Your task to perform on an android device: open sync settings in chrome Image 0: 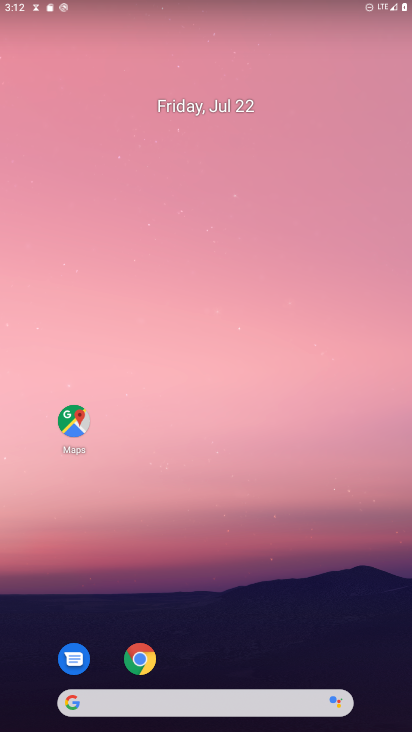
Step 0: drag from (309, 618) to (388, 66)
Your task to perform on an android device: open sync settings in chrome Image 1: 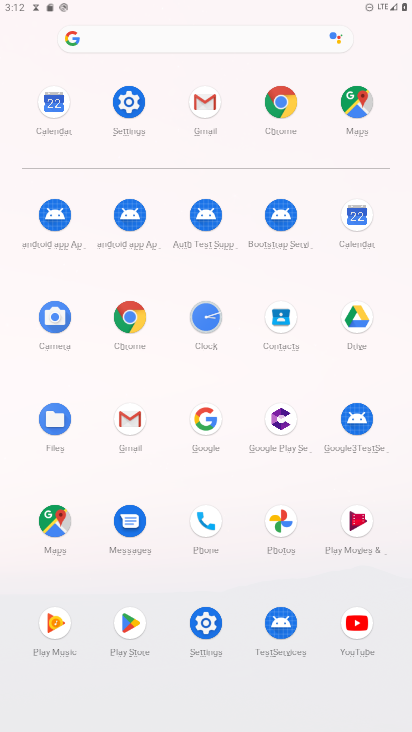
Step 1: click (273, 109)
Your task to perform on an android device: open sync settings in chrome Image 2: 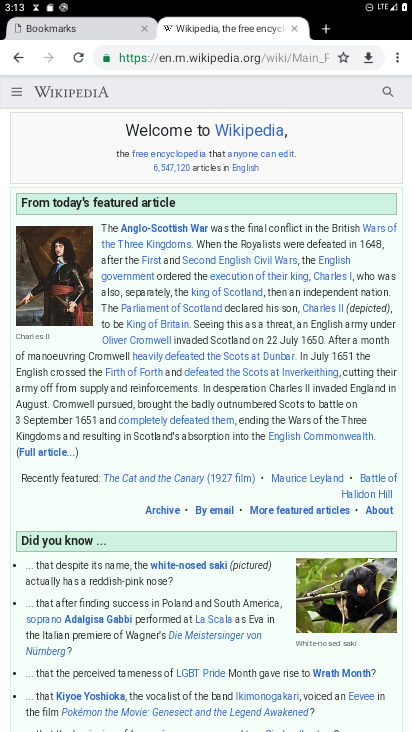
Step 2: drag from (392, 69) to (280, 383)
Your task to perform on an android device: open sync settings in chrome Image 3: 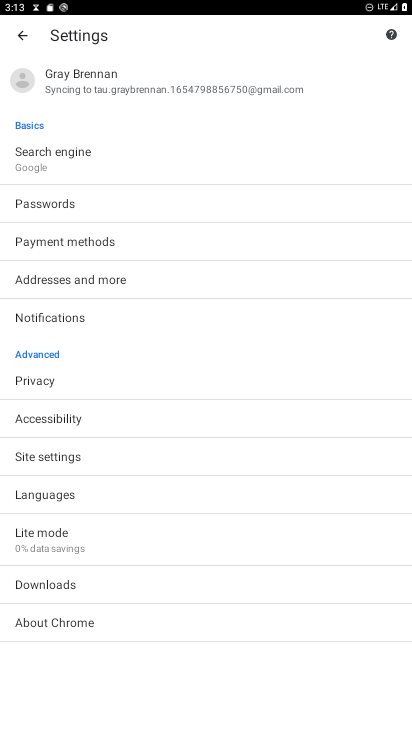
Step 3: click (68, 458)
Your task to perform on an android device: open sync settings in chrome Image 4: 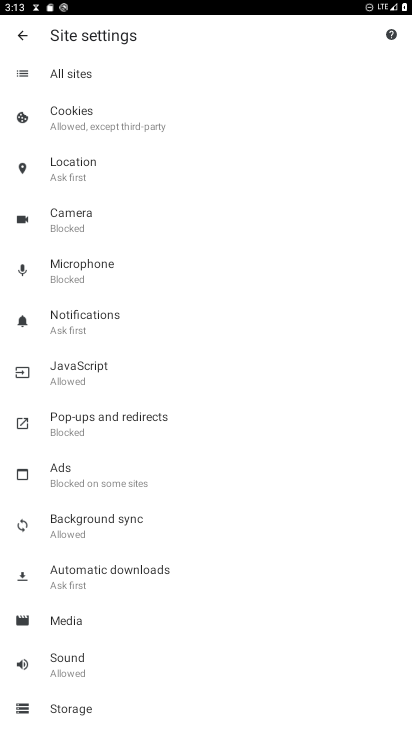
Step 4: click (137, 513)
Your task to perform on an android device: open sync settings in chrome Image 5: 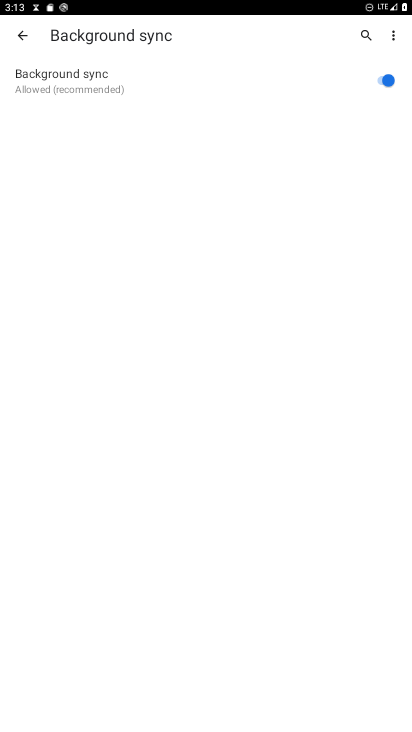
Step 5: task complete